Your task to perform on an android device: check the backup settings in the google photos Image 0: 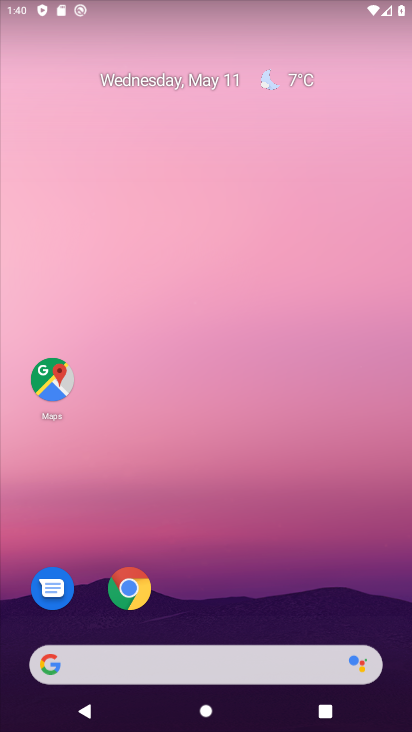
Step 0: drag from (213, 617) to (262, 222)
Your task to perform on an android device: check the backup settings in the google photos Image 1: 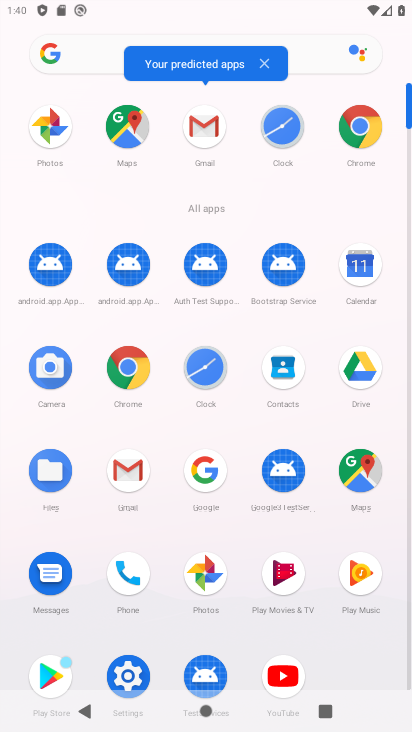
Step 1: click (217, 574)
Your task to perform on an android device: check the backup settings in the google photos Image 2: 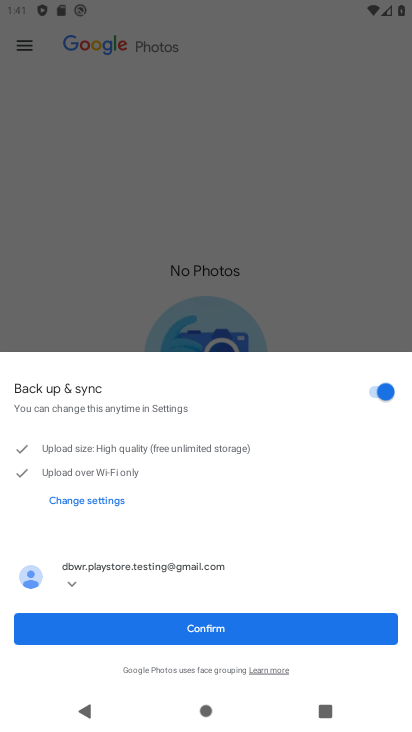
Step 2: click (162, 629)
Your task to perform on an android device: check the backup settings in the google photos Image 3: 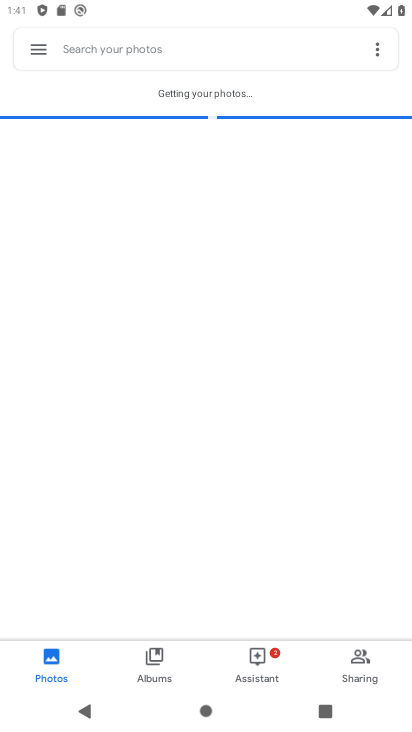
Step 3: click (41, 62)
Your task to perform on an android device: check the backup settings in the google photos Image 4: 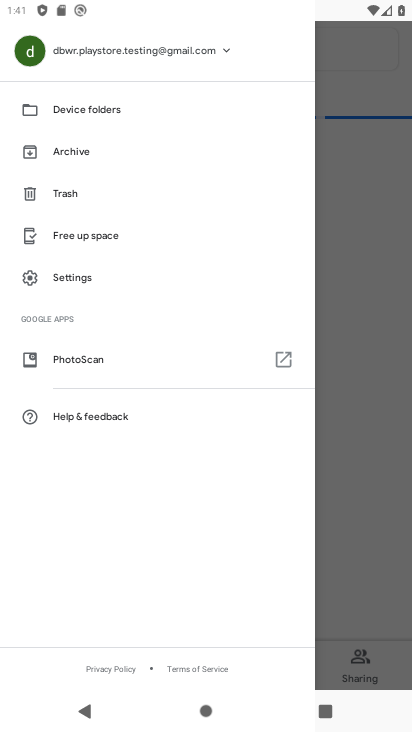
Step 4: click (125, 285)
Your task to perform on an android device: check the backup settings in the google photos Image 5: 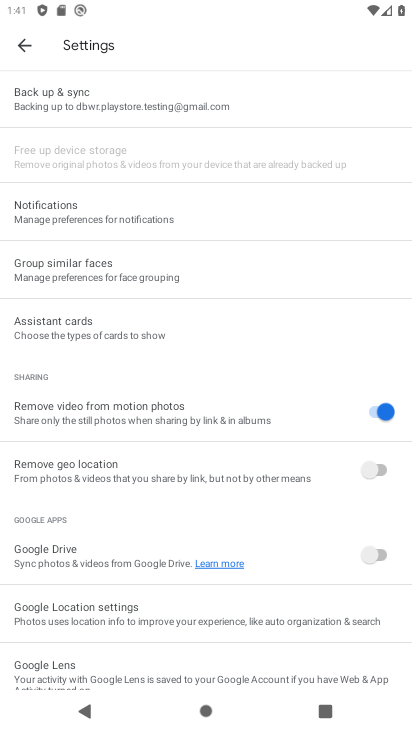
Step 5: click (137, 117)
Your task to perform on an android device: check the backup settings in the google photos Image 6: 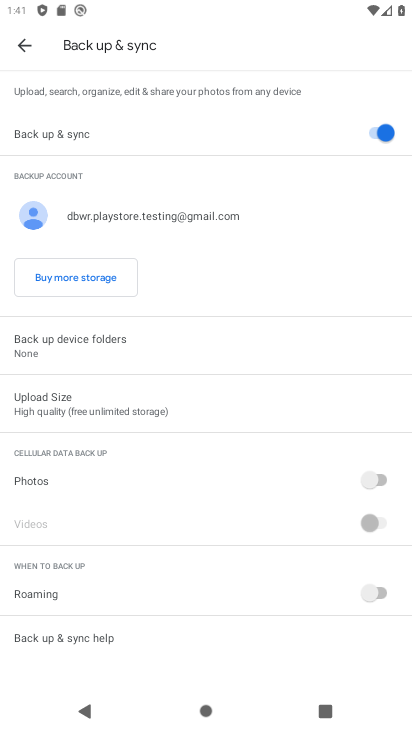
Step 6: click (183, 412)
Your task to perform on an android device: check the backup settings in the google photos Image 7: 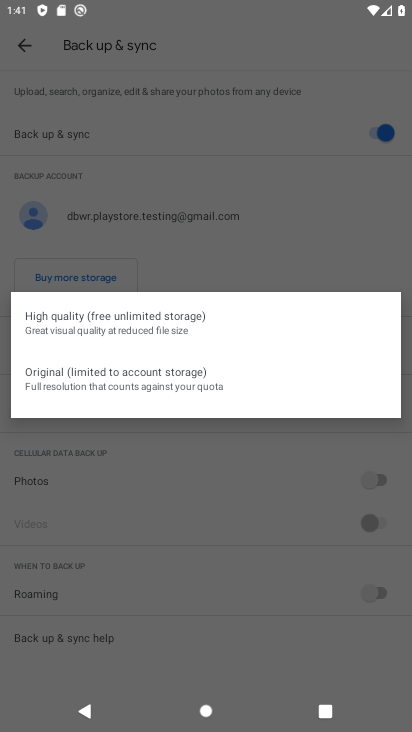
Step 7: task complete